Your task to perform on an android device: Search for the best rated drill on Lowes.com Image 0: 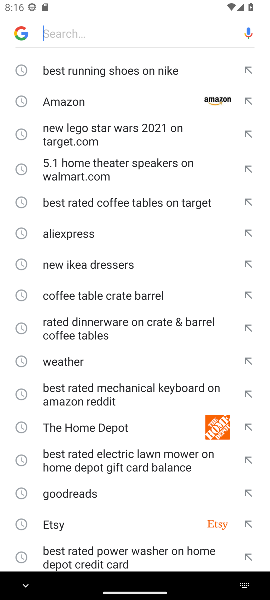
Step 0: press home button
Your task to perform on an android device: Search for the best rated drill on Lowes.com Image 1: 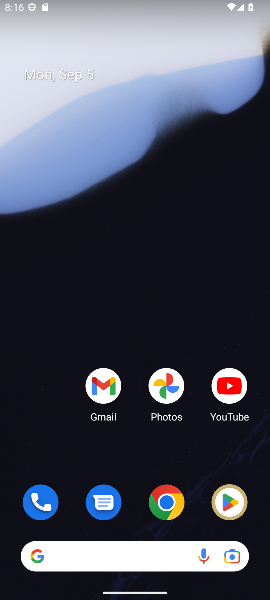
Step 1: drag from (203, 489) to (198, 46)
Your task to perform on an android device: Search for the best rated drill on Lowes.com Image 2: 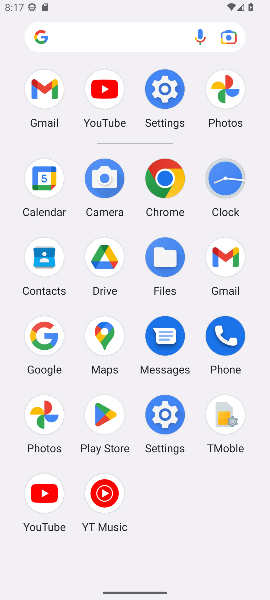
Step 2: click (49, 326)
Your task to perform on an android device: Search for the best rated drill on Lowes.com Image 3: 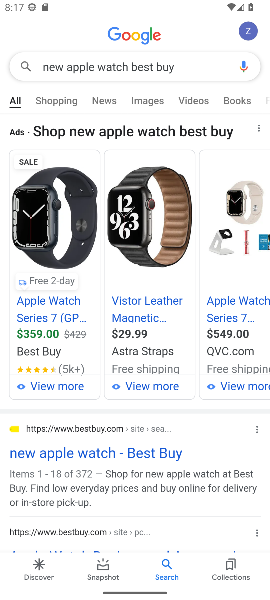
Step 3: press back button
Your task to perform on an android device: Search for the best rated drill on Lowes.com Image 4: 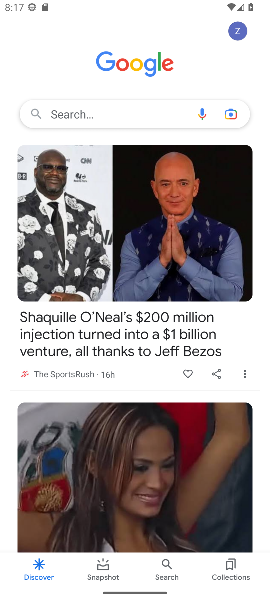
Step 4: click (63, 108)
Your task to perform on an android device: Search for the best rated drill on Lowes.com Image 5: 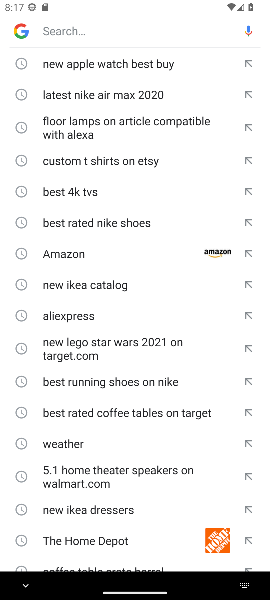
Step 5: type "best rated drill on Lowes.com"
Your task to perform on an android device: Search for the best rated drill on Lowes.com Image 6: 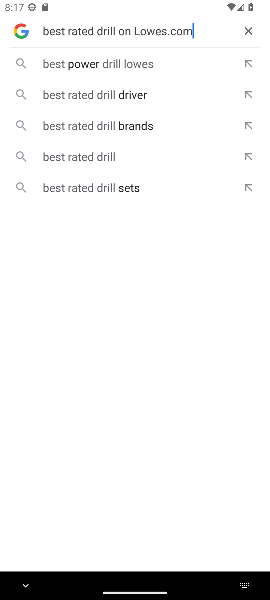
Step 6: click (77, 74)
Your task to perform on an android device: Search for the best rated drill on Lowes.com Image 7: 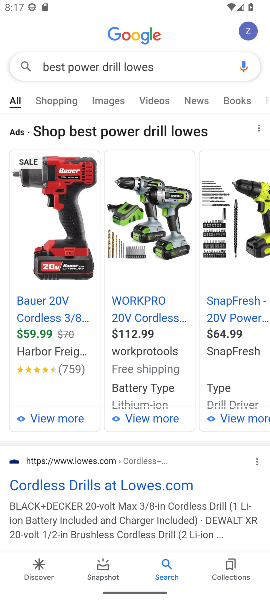
Step 7: task complete